Your task to perform on an android device: Open eBay Image 0: 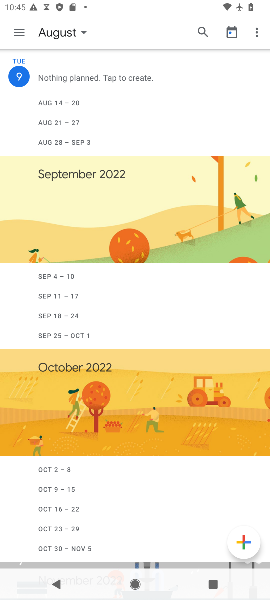
Step 0: press back button
Your task to perform on an android device: Open eBay Image 1: 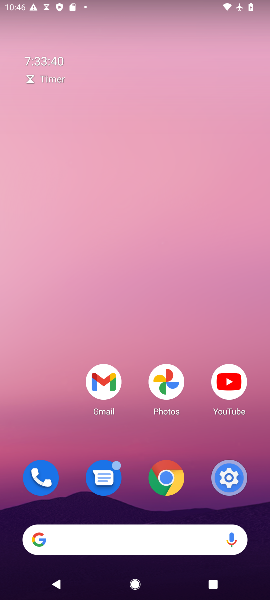
Step 1: click (163, 486)
Your task to perform on an android device: Open eBay Image 2: 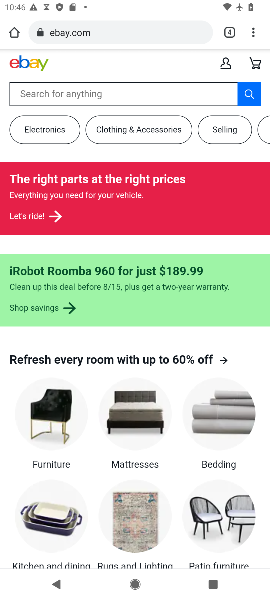
Step 2: task complete